Your task to perform on an android device: turn on javascript in the chrome app Image 0: 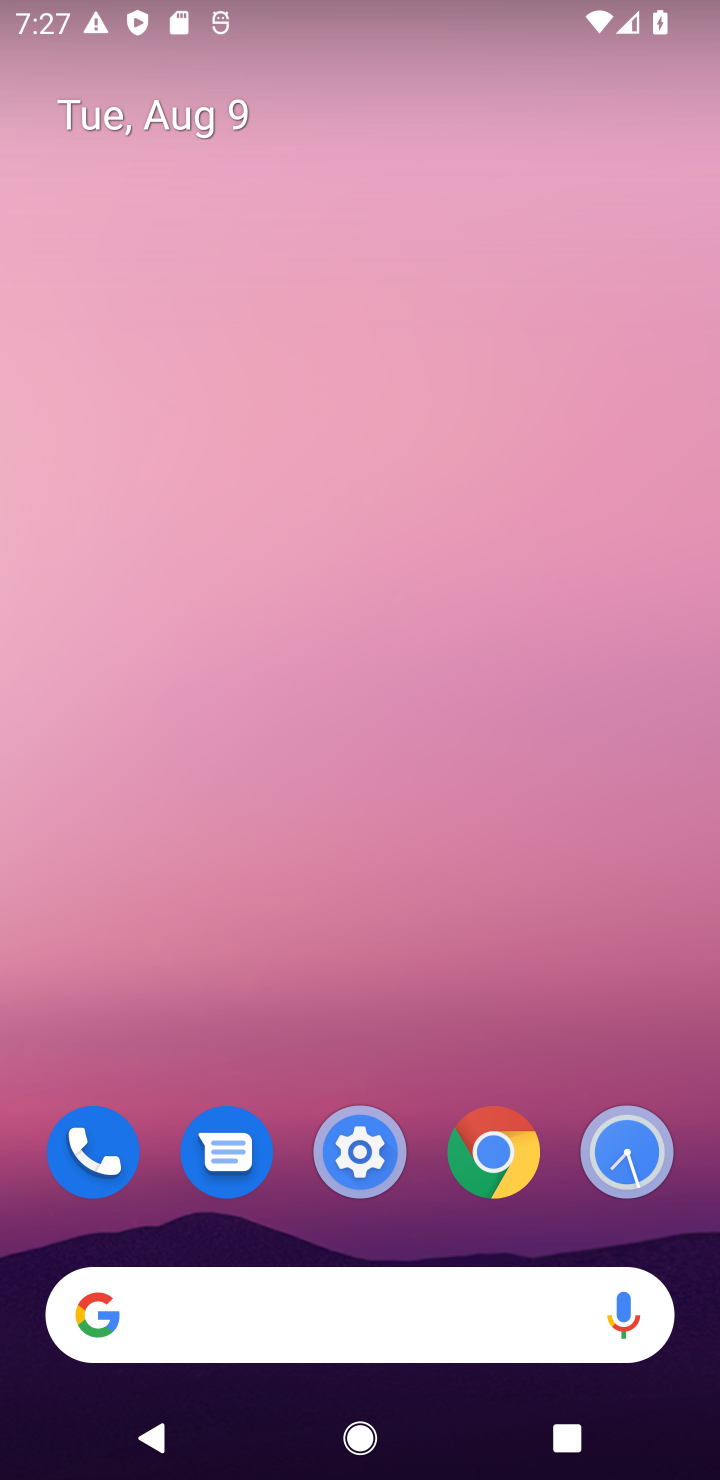
Step 0: click (504, 1176)
Your task to perform on an android device: turn on javascript in the chrome app Image 1: 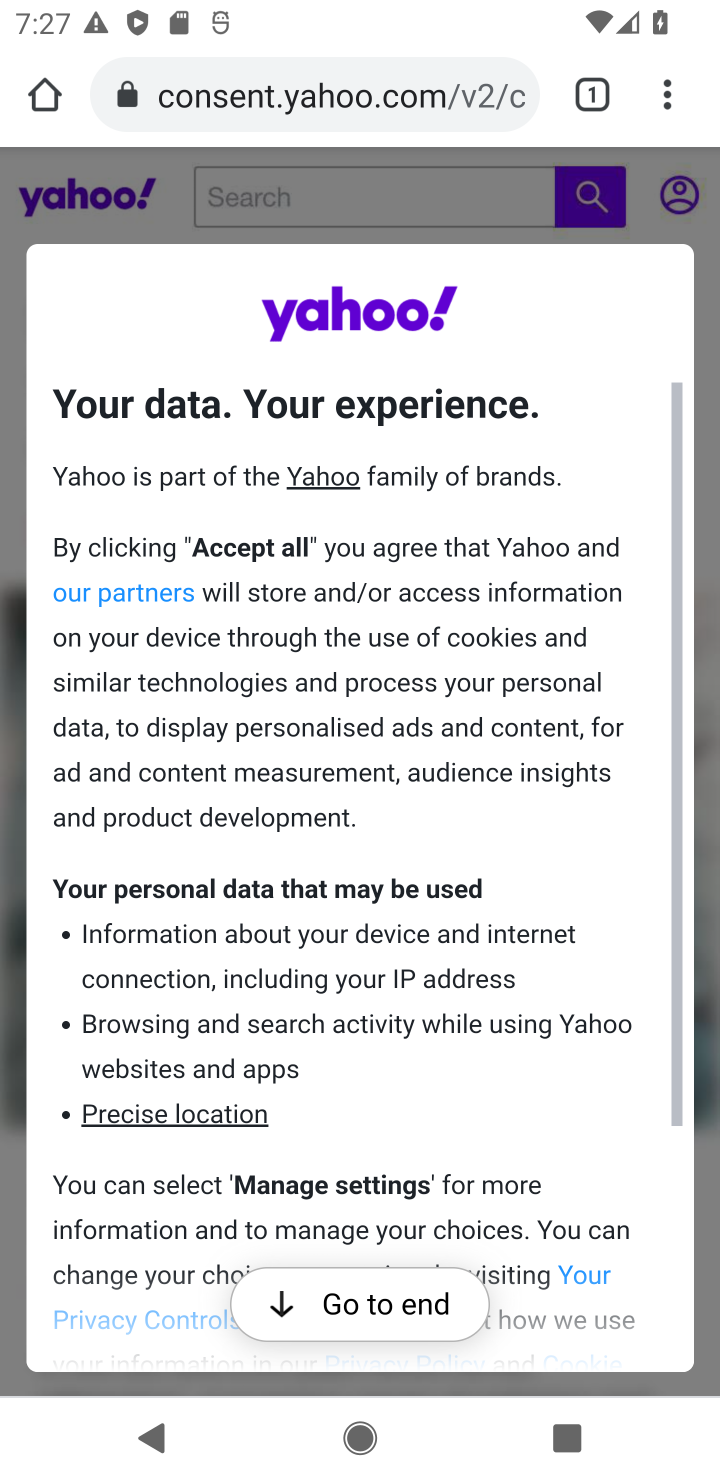
Step 1: click (688, 93)
Your task to perform on an android device: turn on javascript in the chrome app Image 2: 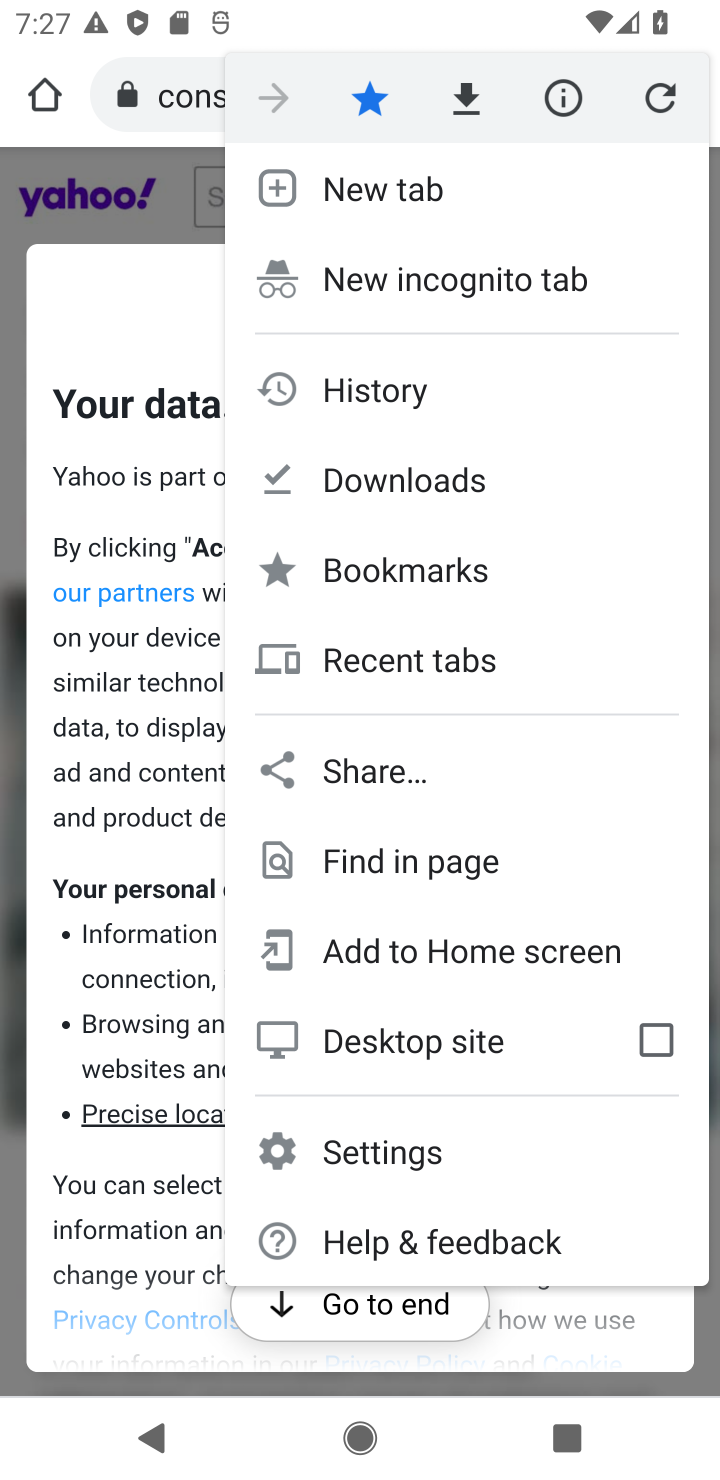
Step 2: click (365, 1146)
Your task to perform on an android device: turn on javascript in the chrome app Image 3: 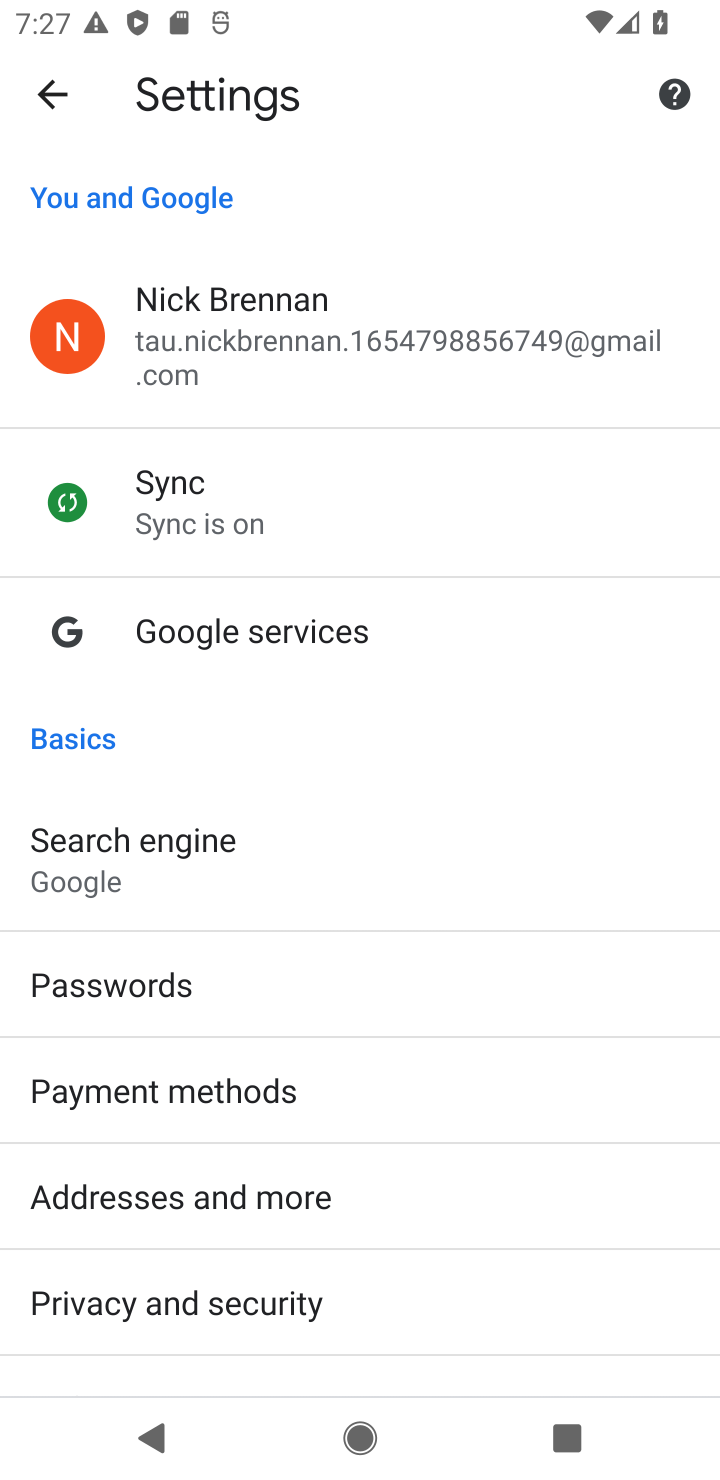
Step 3: drag from (341, 1244) to (409, 620)
Your task to perform on an android device: turn on javascript in the chrome app Image 4: 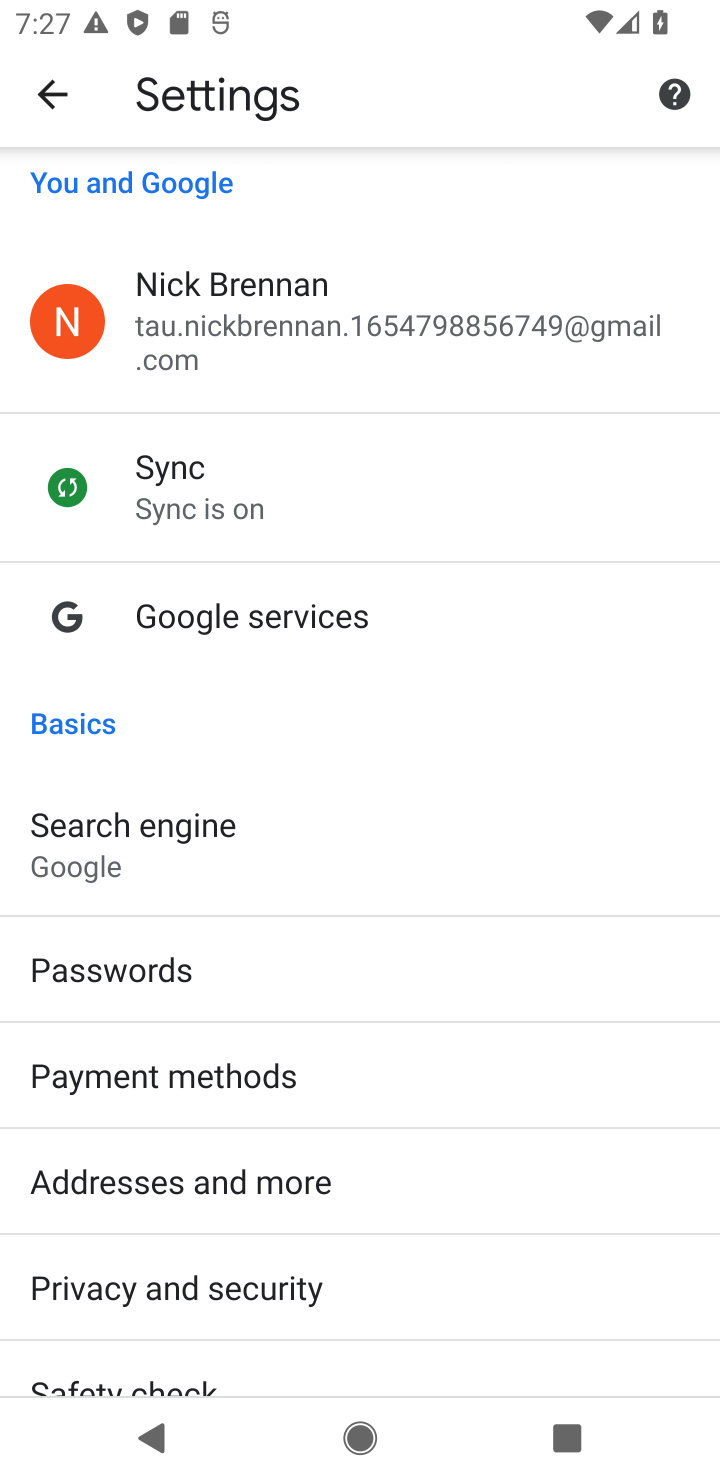
Step 4: drag from (325, 1356) to (263, 481)
Your task to perform on an android device: turn on javascript in the chrome app Image 5: 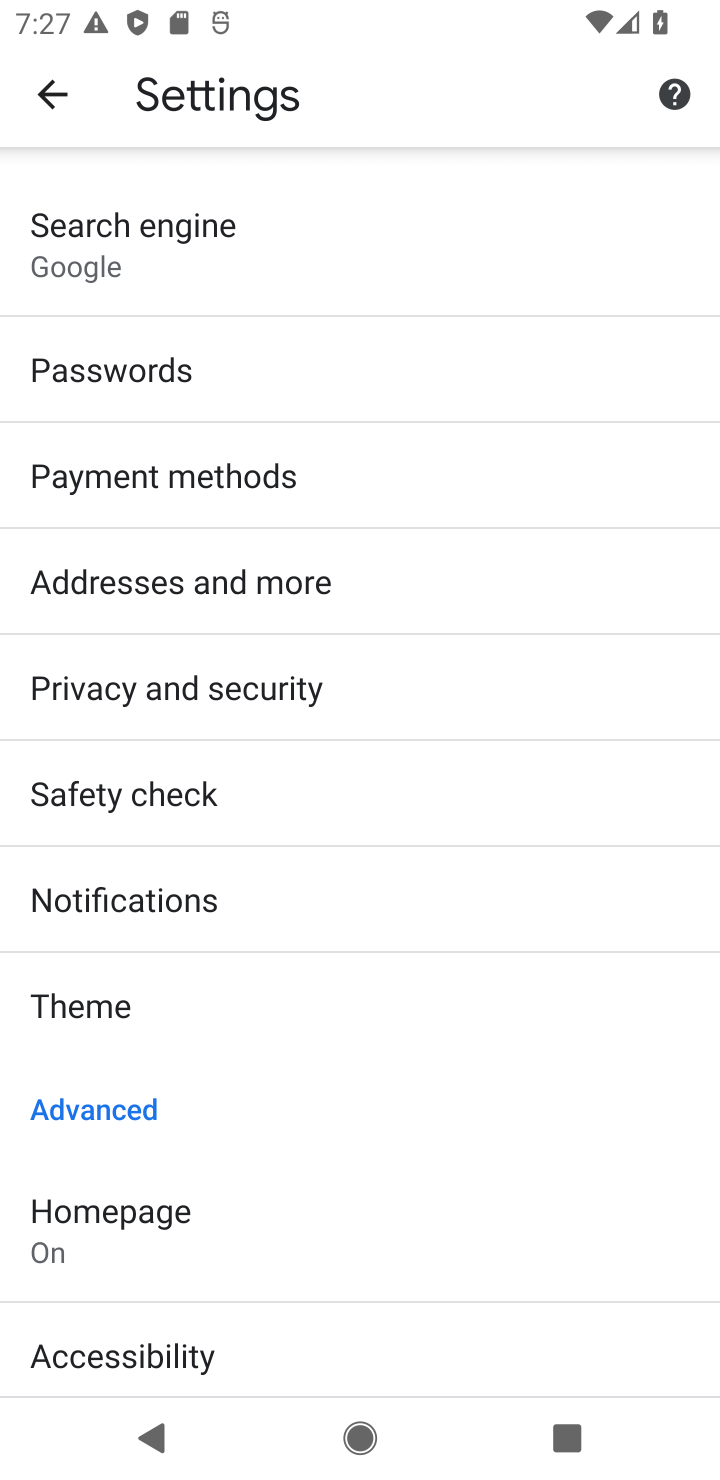
Step 5: drag from (295, 1043) to (314, 167)
Your task to perform on an android device: turn on javascript in the chrome app Image 6: 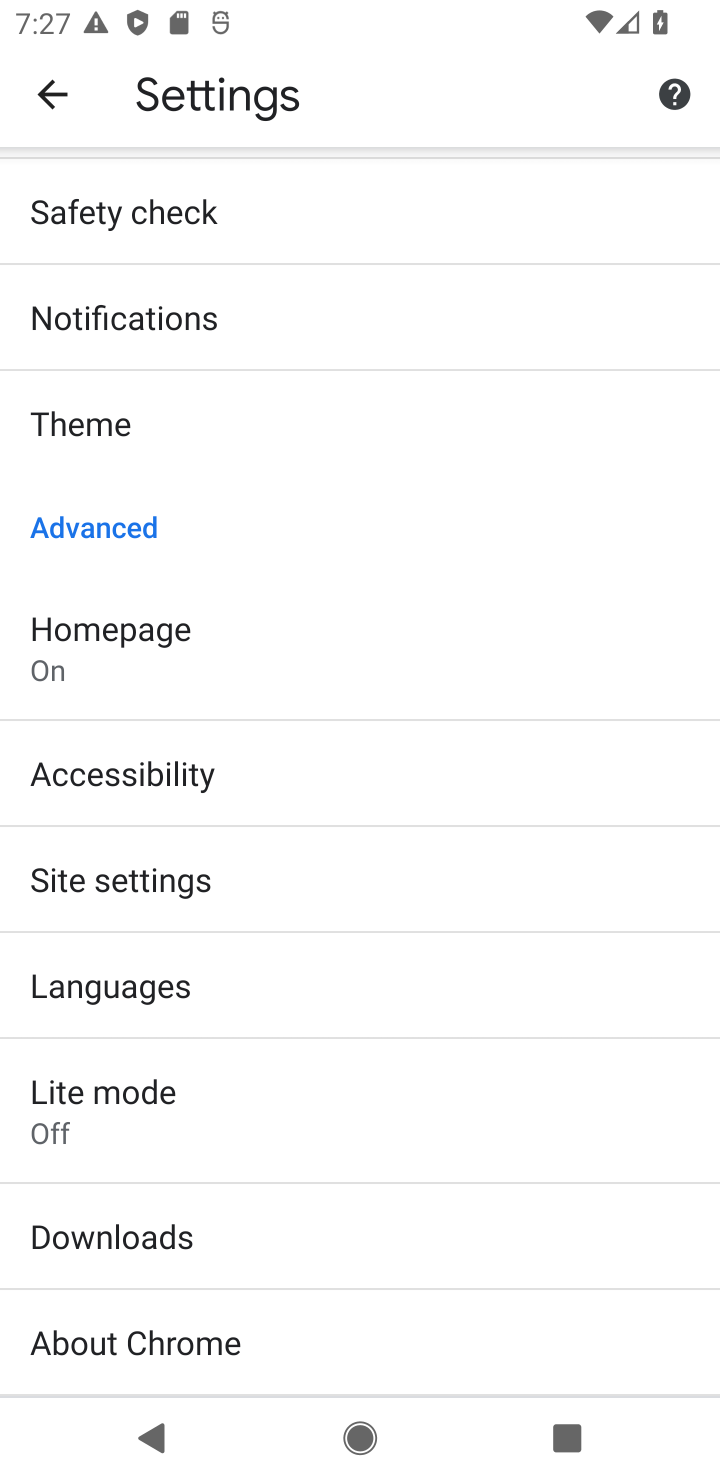
Step 6: click (242, 847)
Your task to perform on an android device: turn on javascript in the chrome app Image 7: 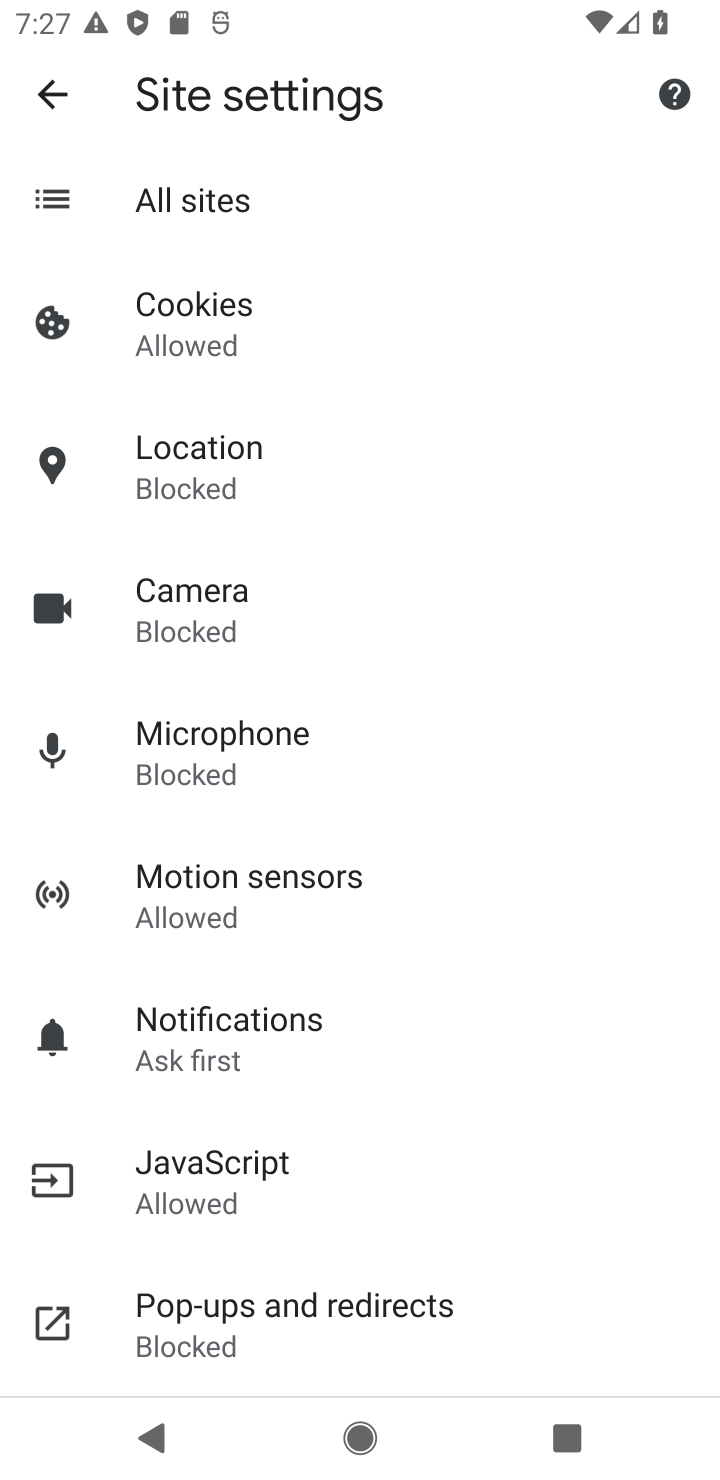
Step 7: click (319, 1191)
Your task to perform on an android device: turn on javascript in the chrome app Image 8: 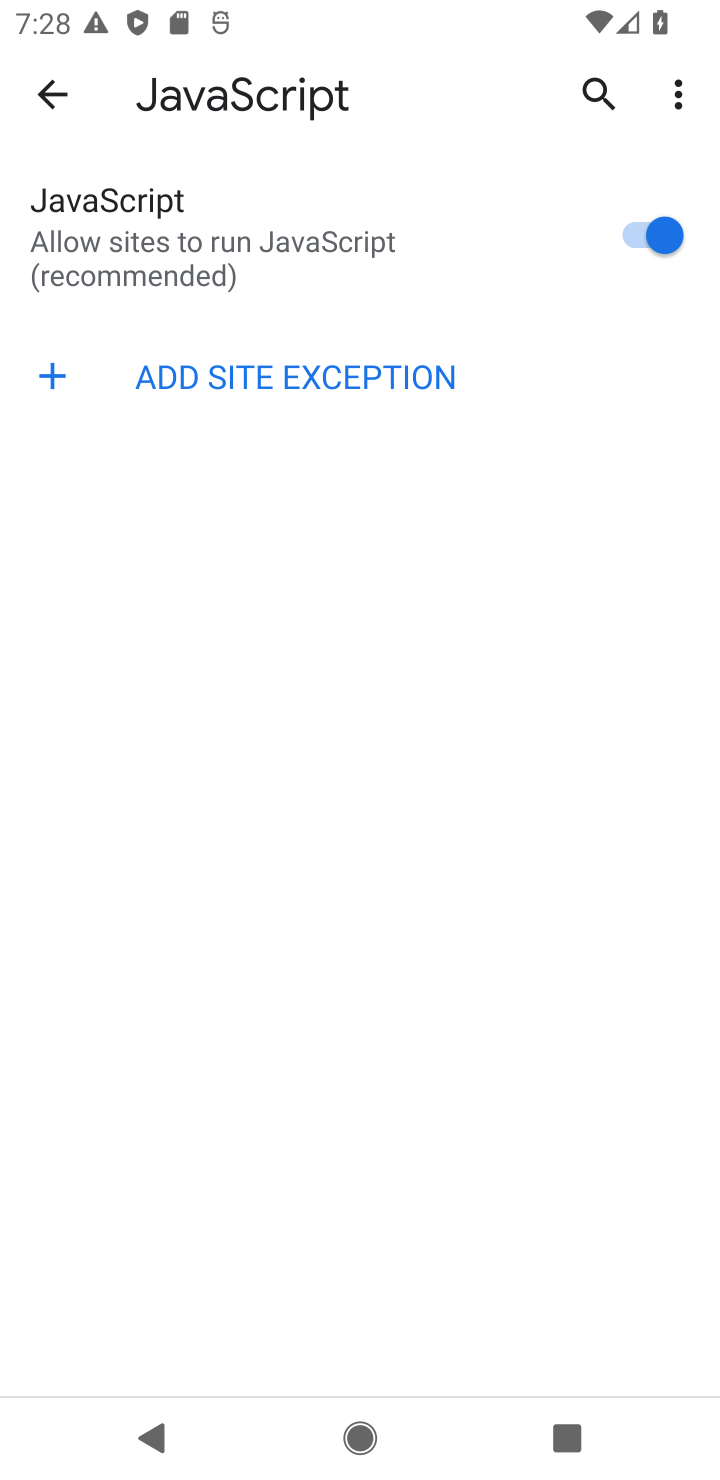
Step 8: task complete